Your task to perform on an android device: Go to Maps Image 0: 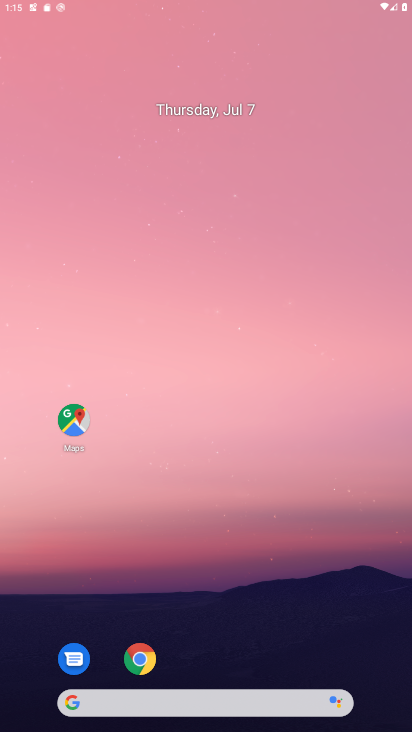
Step 0: drag from (251, 534) to (280, 153)
Your task to perform on an android device: Go to Maps Image 1: 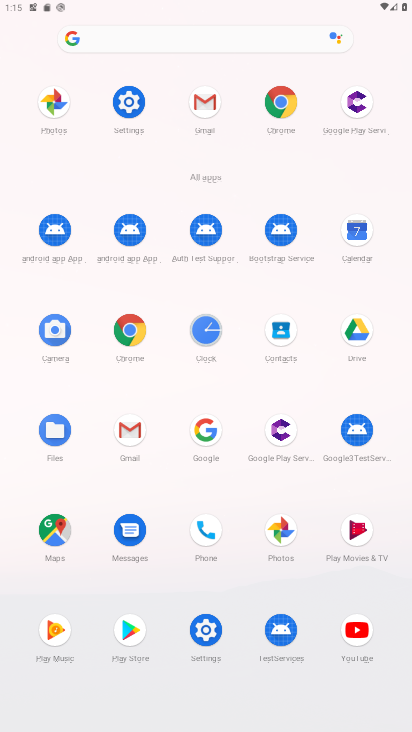
Step 1: click (58, 518)
Your task to perform on an android device: Go to Maps Image 2: 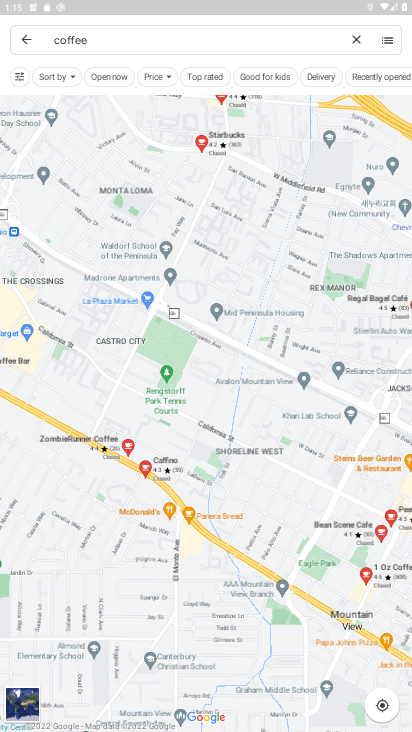
Step 2: drag from (216, 418) to (271, 273)
Your task to perform on an android device: Go to Maps Image 3: 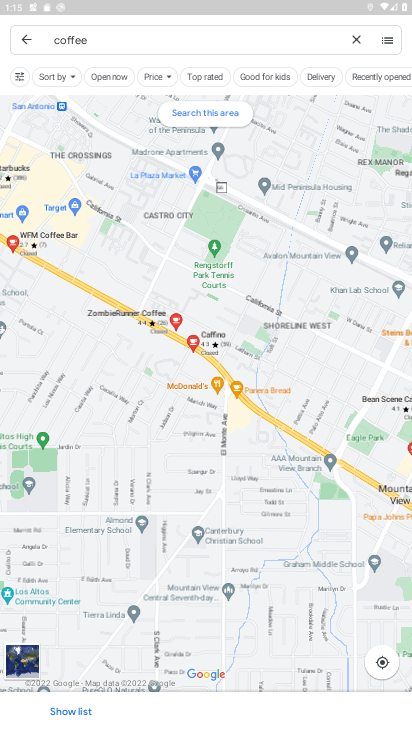
Step 3: click (360, 36)
Your task to perform on an android device: Go to Maps Image 4: 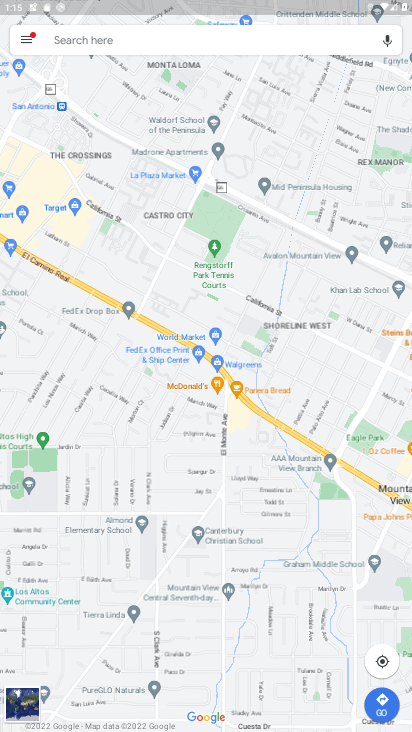
Step 4: task complete